Your task to perform on an android device: What is the news today? Image 0: 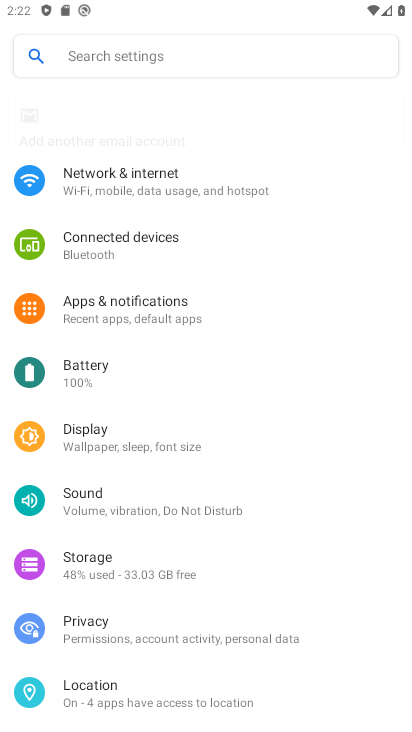
Step 0: press home button
Your task to perform on an android device: What is the news today? Image 1: 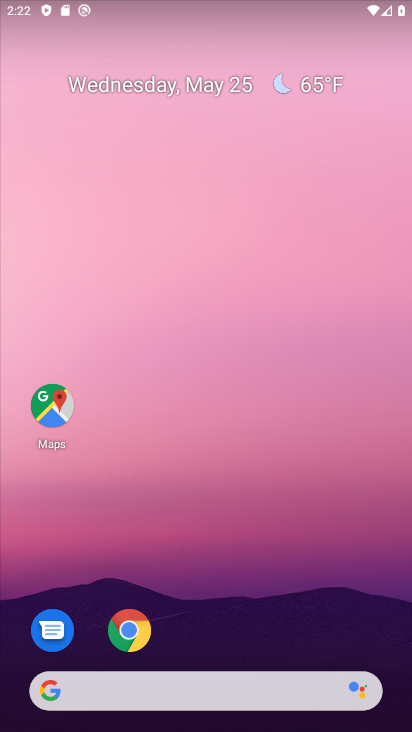
Step 1: task complete